Your task to perform on an android device: turn on showing notifications on the lock screen Image 0: 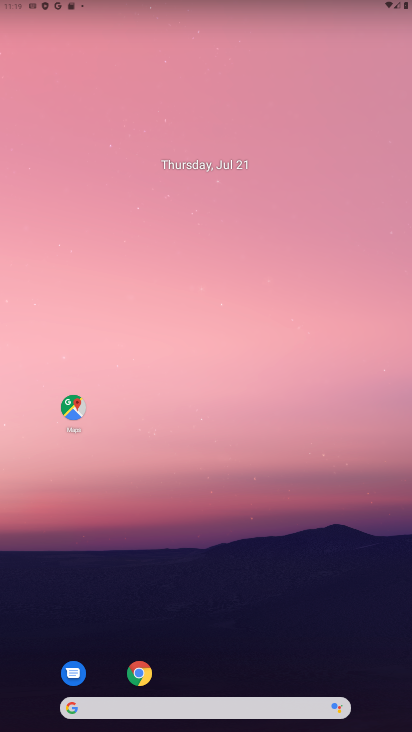
Step 0: click (240, 128)
Your task to perform on an android device: turn on showing notifications on the lock screen Image 1: 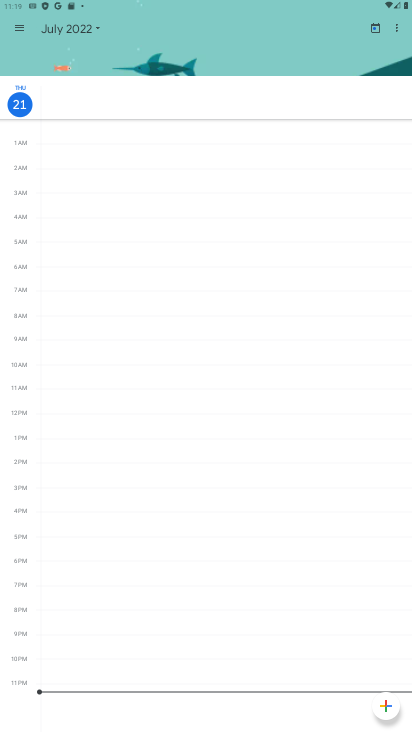
Step 1: drag from (211, 581) to (229, 85)
Your task to perform on an android device: turn on showing notifications on the lock screen Image 2: 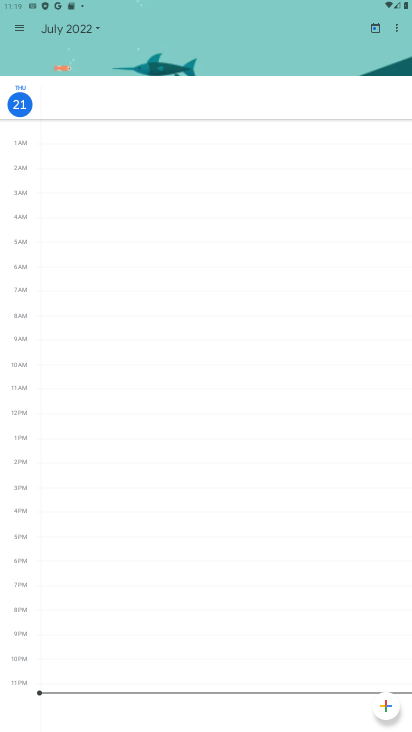
Step 2: press home button
Your task to perform on an android device: turn on showing notifications on the lock screen Image 3: 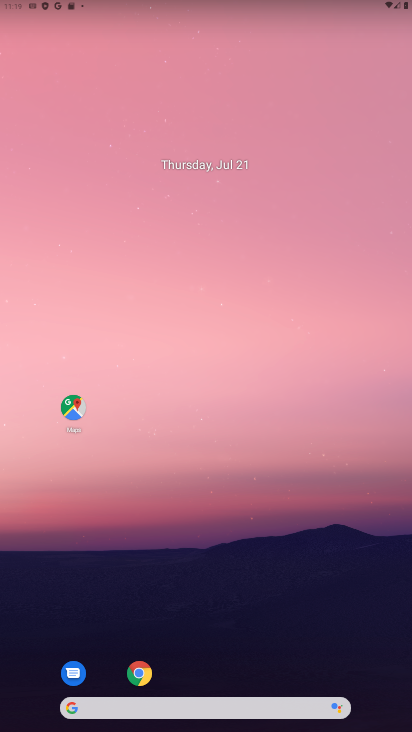
Step 3: drag from (224, 667) to (253, 33)
Your task to perform on an android device: turn on showing notifications on the lock screen Image 4: 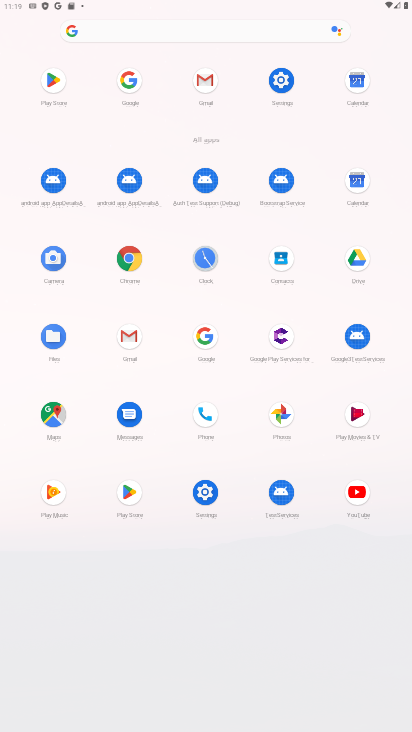
Step 4: click (205, 486)
Your task to perform on an android device: turn on showing notifications on the lock screen Image 5: 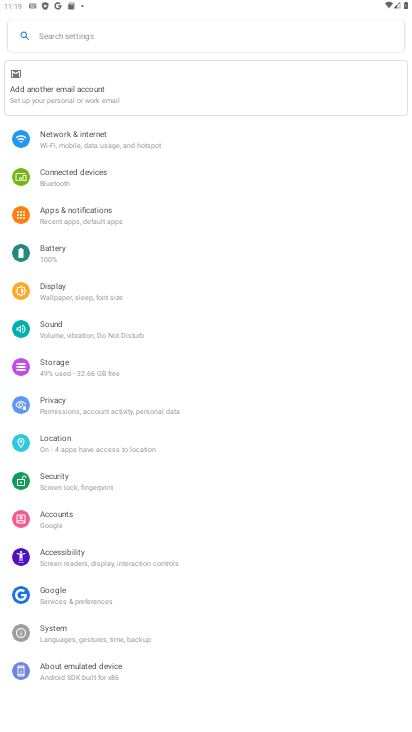
Step 5: click (106, 208)
Your task to perform on an android device: turn on showing notifications on the lock screen Image 6: 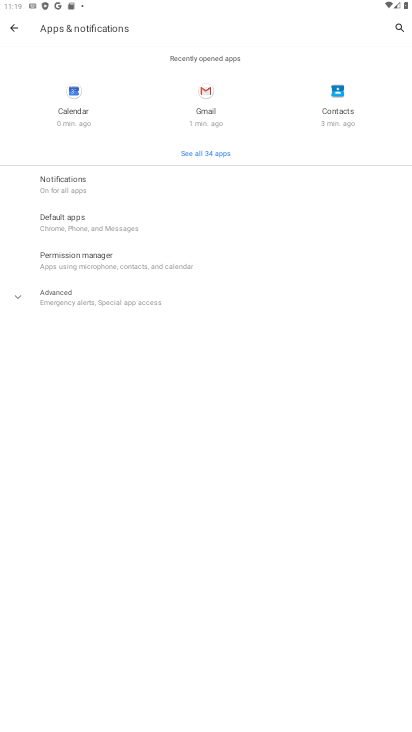
Step 6: click (43, 186)
Your task to perform on an android device: turn on showing notifications on the lock screen Image 7: 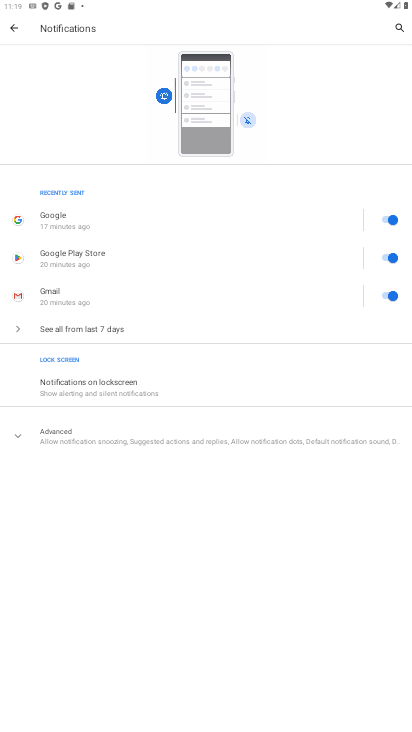
Step 7: click (92, 389)
Your task to perform on an android device: turn on showing notifications on the lock screen Image 8: 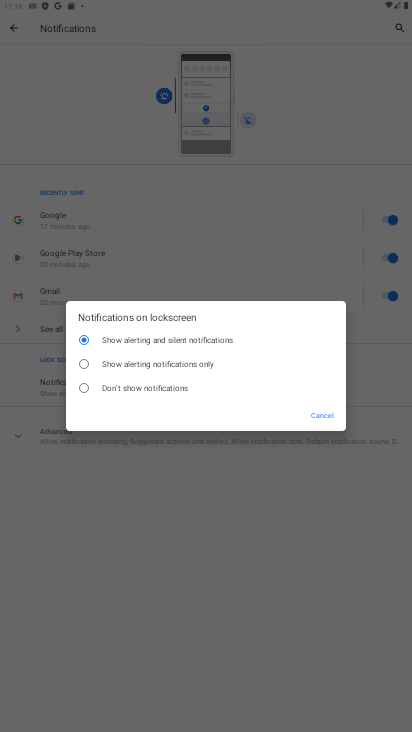
Step 8: click (127, 363)
Your task to perform on an android device: turn on showing notifications on the lock screen Image 9: 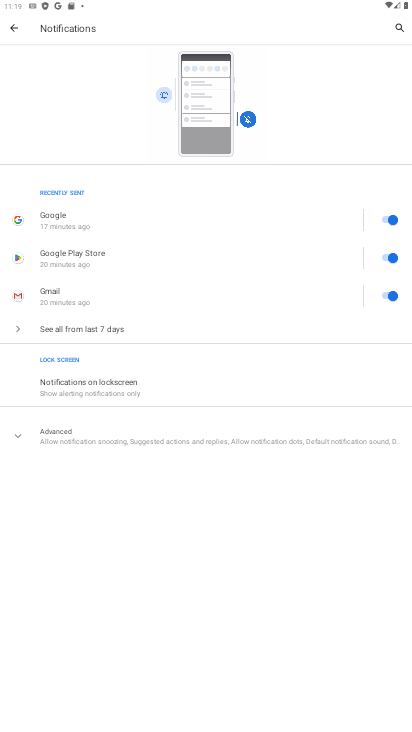
Step 9: task complete